Your task to perform on an android device: find snoozed emails in the gmail app Image 0: 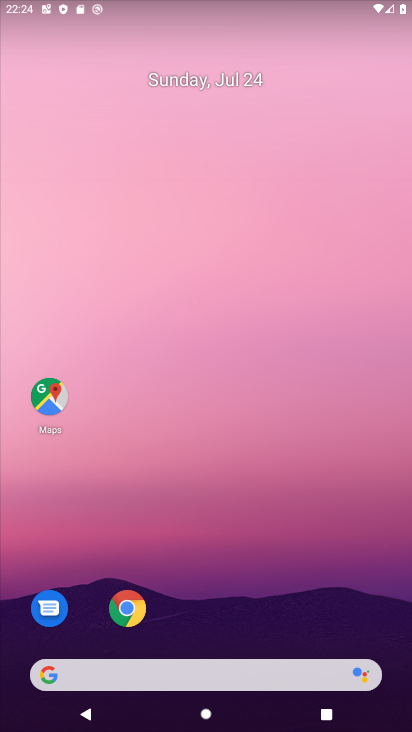
Step 0: drag from (303, 613) to (262, 78)
Your task to perform on an android device: find snoozed emails in the gmail app Image 1: 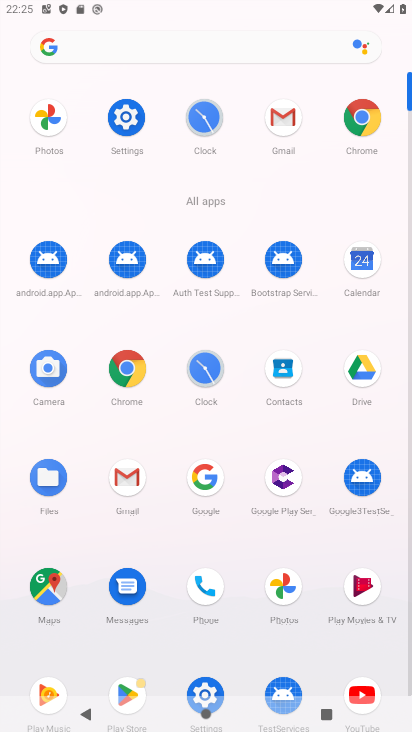
Step 1: click (125, 475)
Your task to perform on an android device: find snoozed emails in the gmail app Image 2: 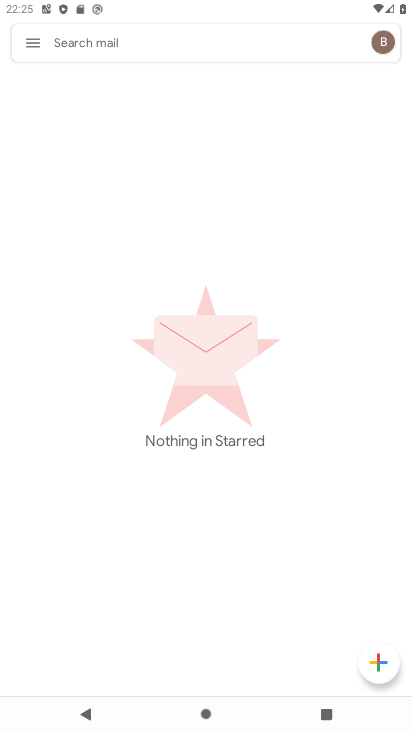
Step 2: click (35, 41)
Your task to perform on an android device: find snoozed emails in the gmail app Image 3: 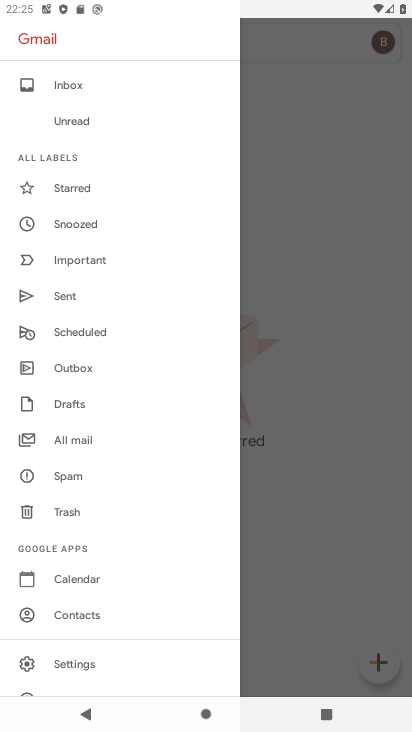
Step 3: click (71, 223)
Your task to perform on an android device: find snoozed emails in the gmail app Image 4: 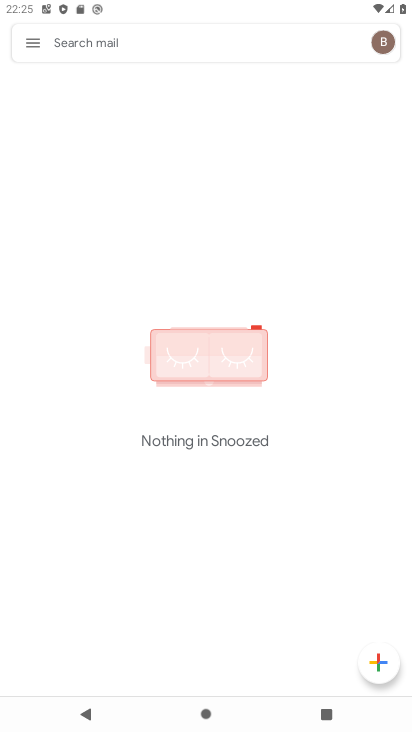
Step 4: task complete